Your task to perform on an android device: toggle notifications settings in the gmail app Image 0: 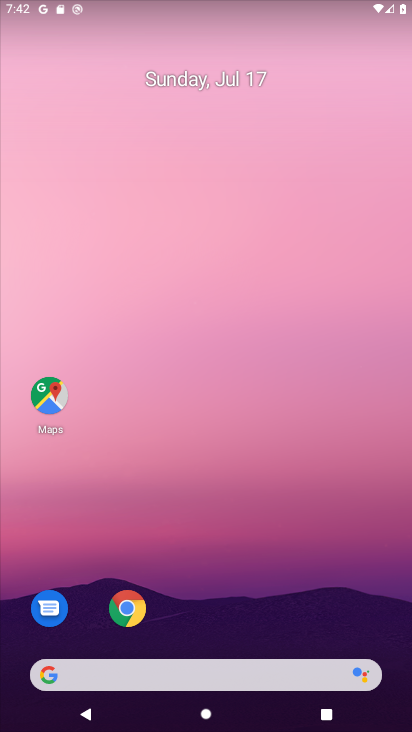
Step 0: drag from (197, 664) to (194, 470)
Your task to perform on an android device: toggle notifications settings in the gmail app Image 1: 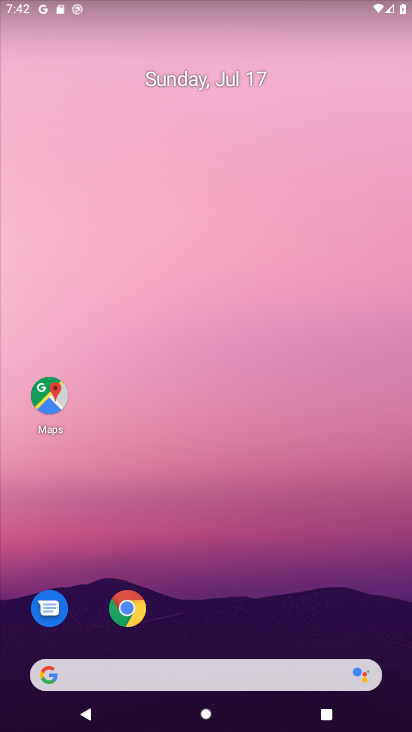
Step 1: drag from (218, 642) to (268, 354)
Your task to perform on an android device: toggle notifications settings in the gmail app Image 2: 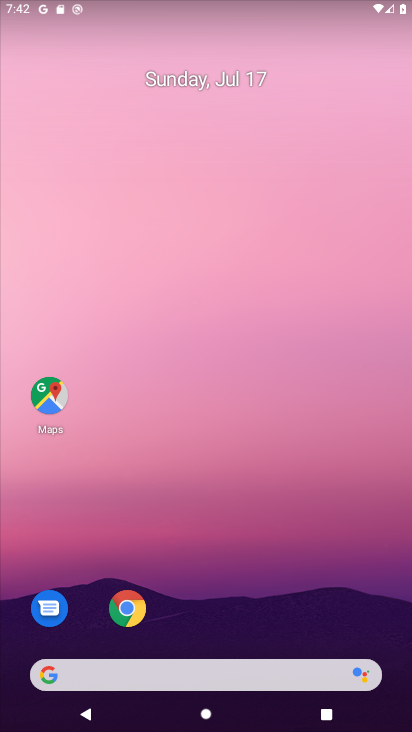
Step 2: drag from (144, 672) to (152, 322)
Your task to perform on an android device: toggle notifications settings in the gmail app Image 3: 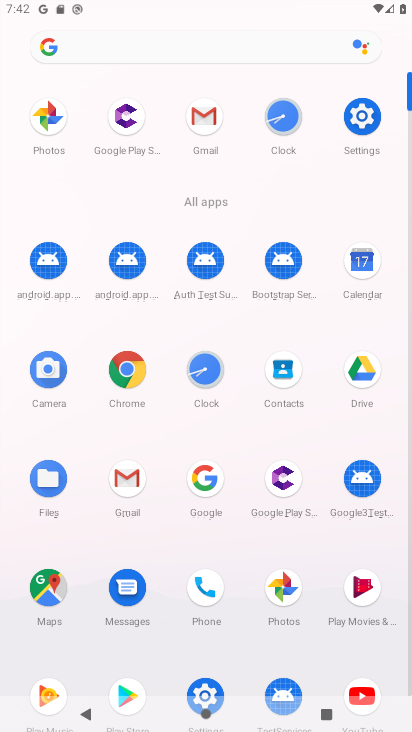
Step 3: click (128, 468)
Your task to perform on an android device: toggle notifications settings in the gmail app Image 4: 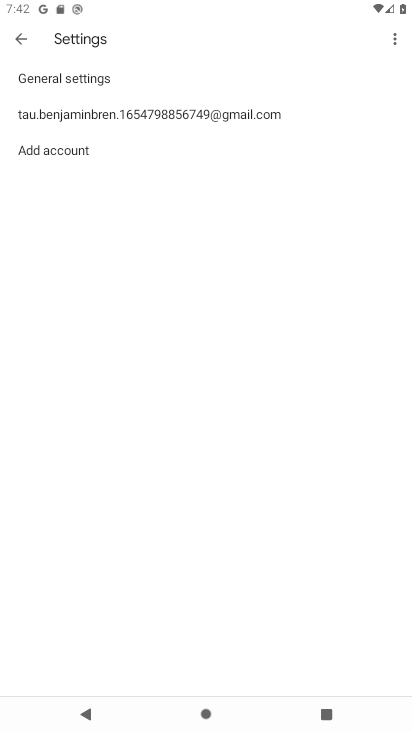
Step 4: click (130, 109)
Your task to perform on an android device: toggle notifications settings in the gmail app Image 5: 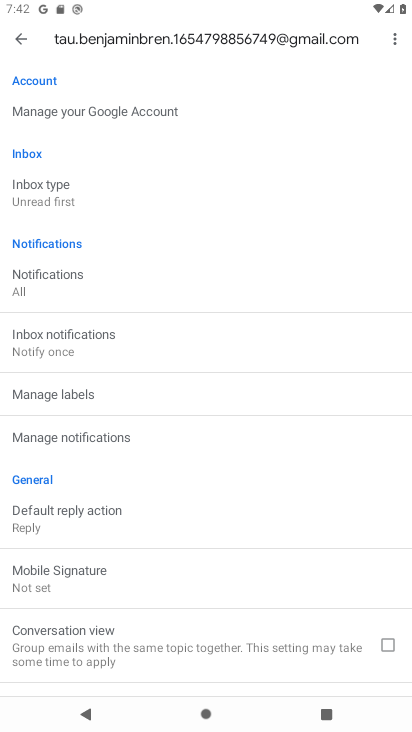
Step 5: click (87, 434)
Your task to perform on an android device: toggle notifications settings in the gmail app Image 6: 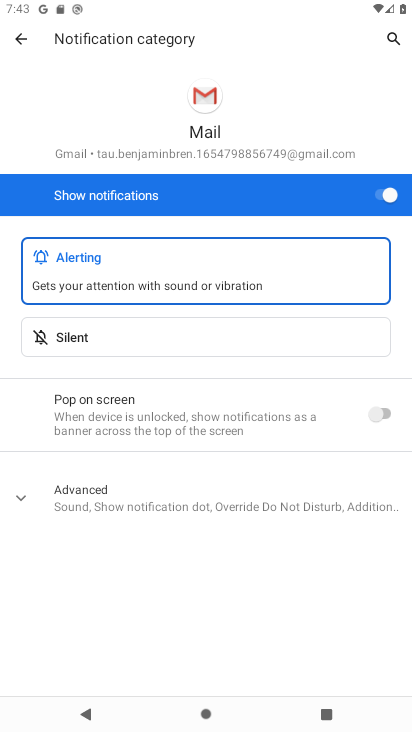
Step 6: click (382, 191)
Your task to perform on an android device: toggle notifications settings in the gmail app Image 7: 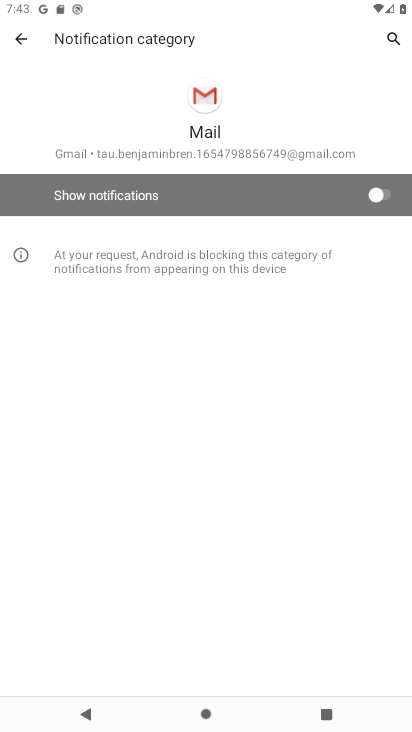
Step 7: task complete